Your task to perform on an android device: turn on data saver in the chrome app Image 0: 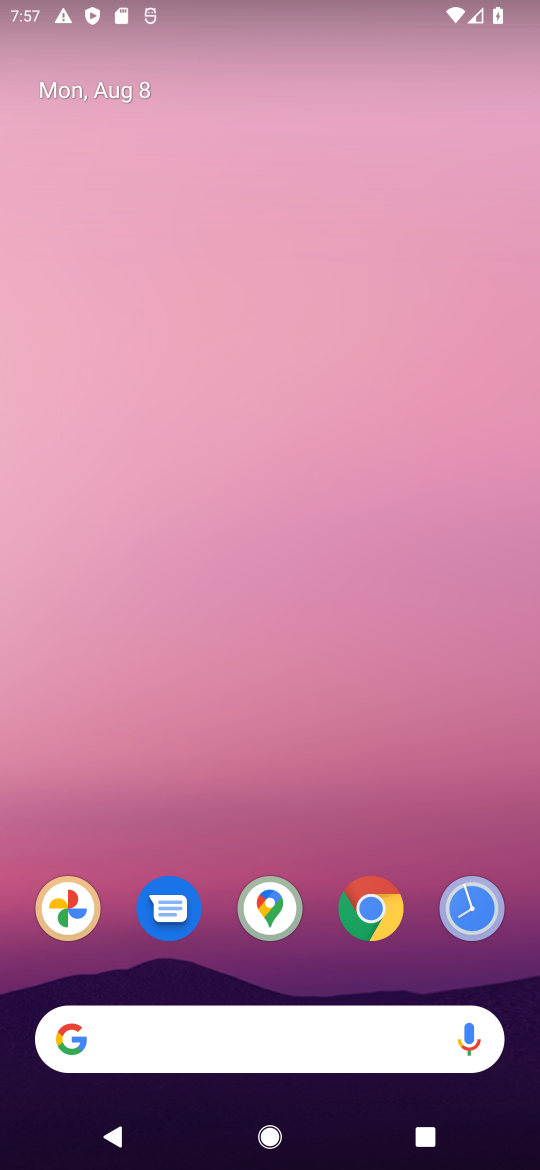
Step 0: click (355, 928)
Your task to perform on an android device: turn on data saver in the chrome app Image 1: 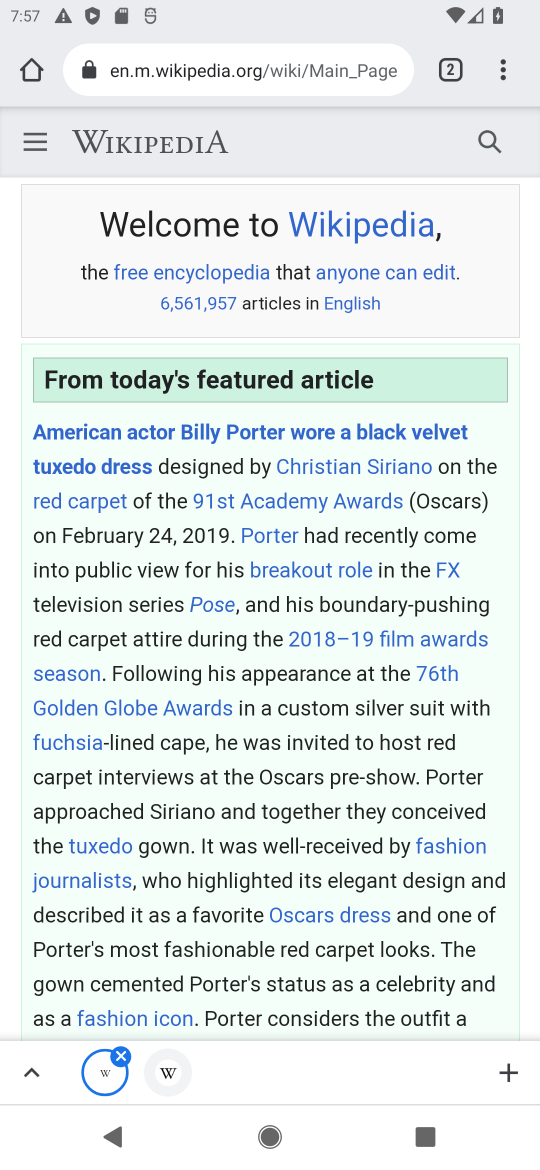
Step 1: click (506, 71)
Your task to perform on an android device: turn on data saver in the chrome app Image 2: 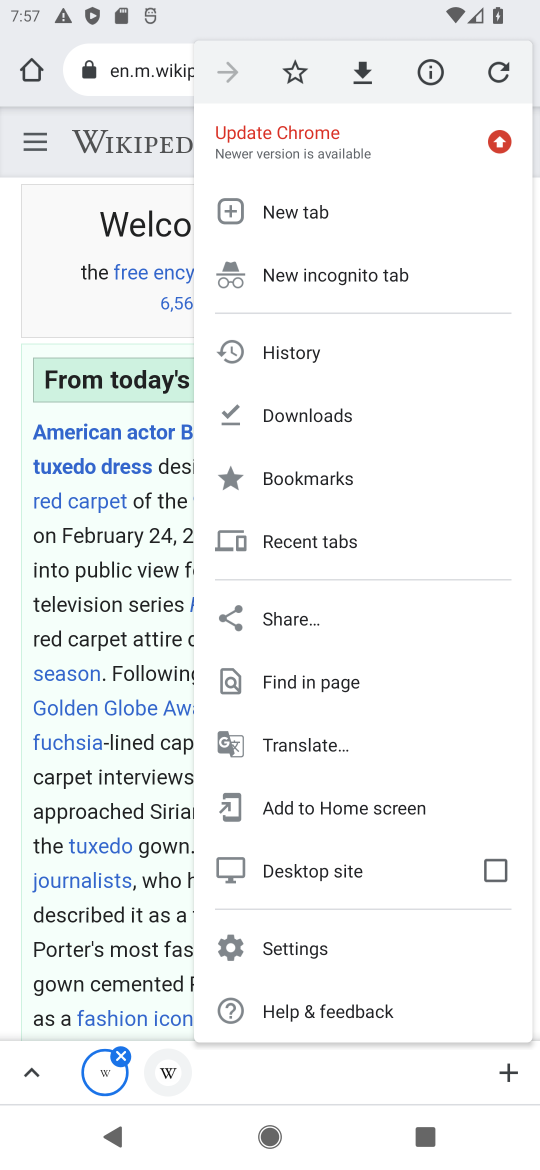
Step 2: click (318, 943)
Your task to perform on an android device: turn on data saver in the chrome app Image 3: 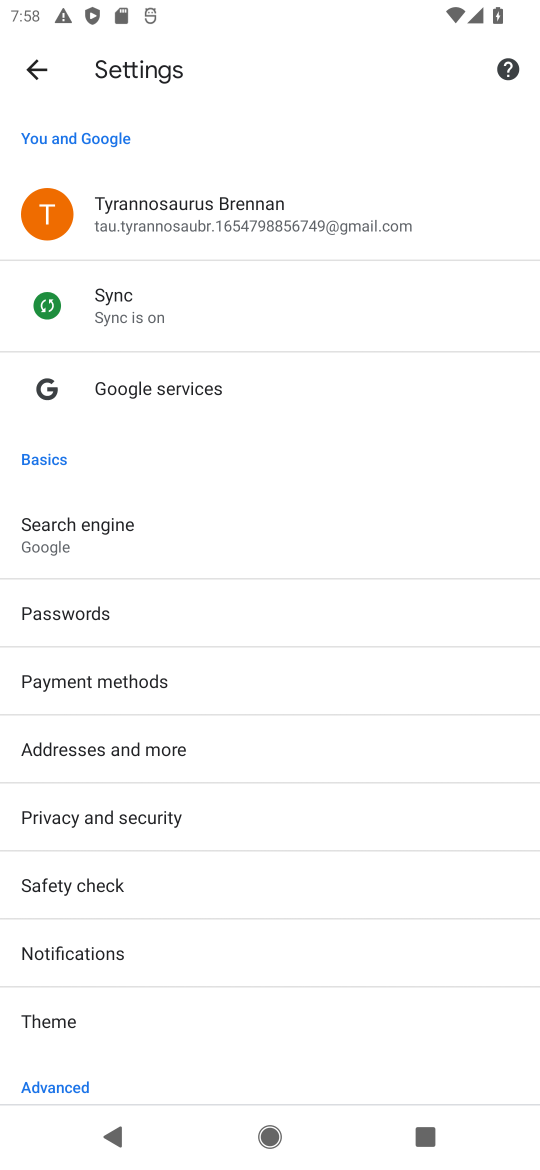
Step 3: click (27, 76)
Your task to perform on an android device: turn on data saver in the chrome app Image 4: 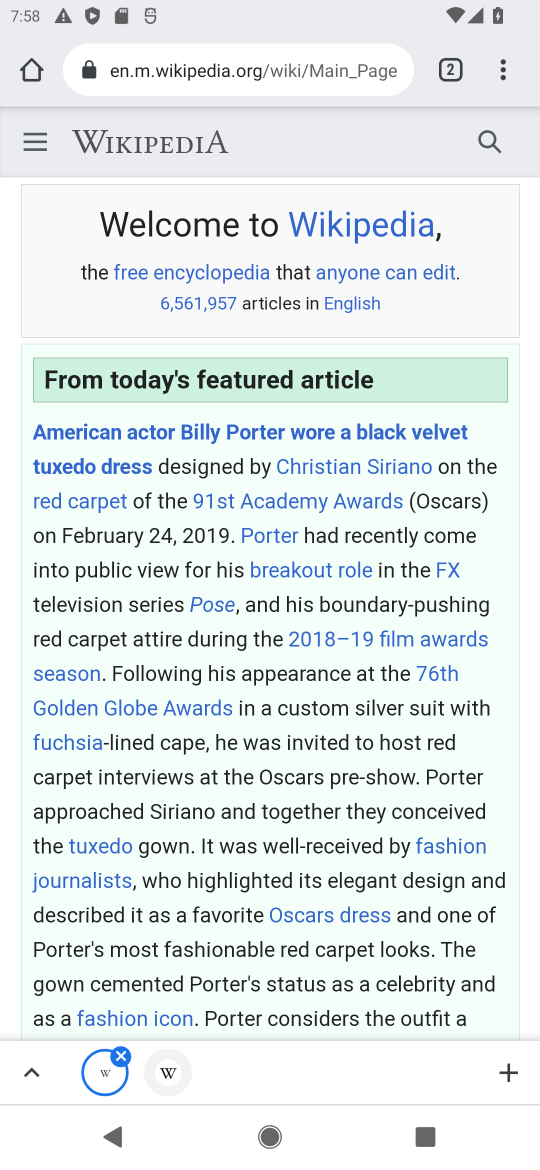
Step 4: click (510, 63)
Your task to perform on an android device: turn on data saver in the chrome app Image 5: 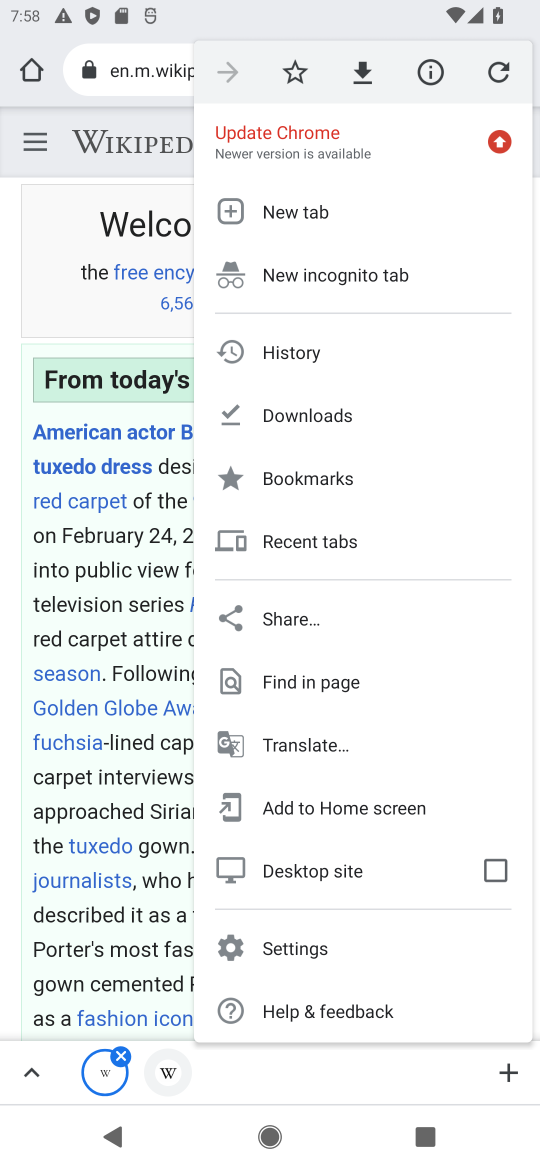
Step 5: click (510, 63)
Your task to perform on an android device: turn on data saver in the chrome app Image 6: 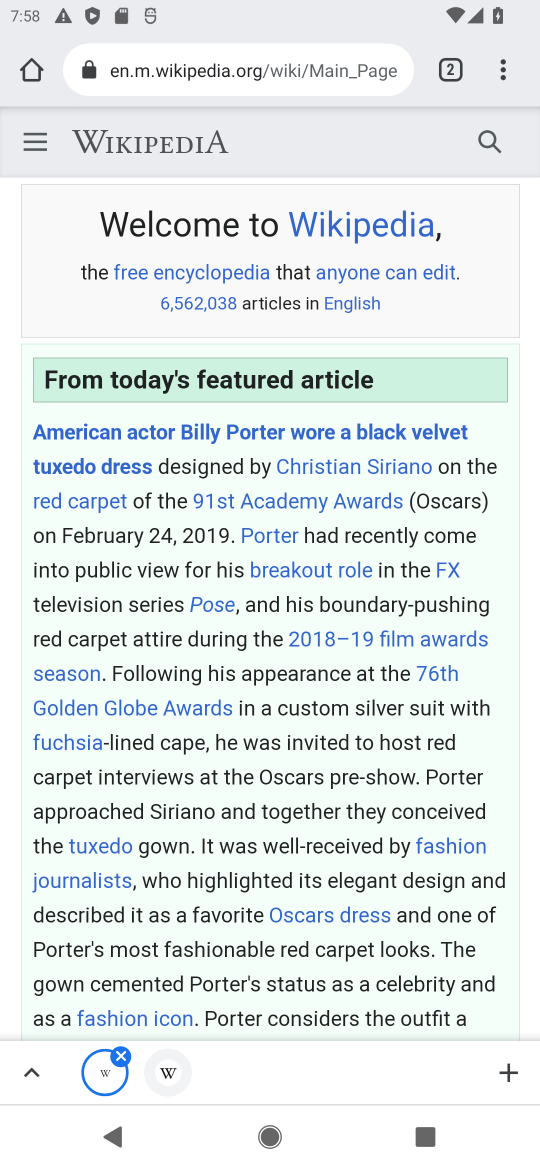
Step 6: click (506, 77)
Your task to perform on an android device: turn on data saver in the chrome app Image 7: 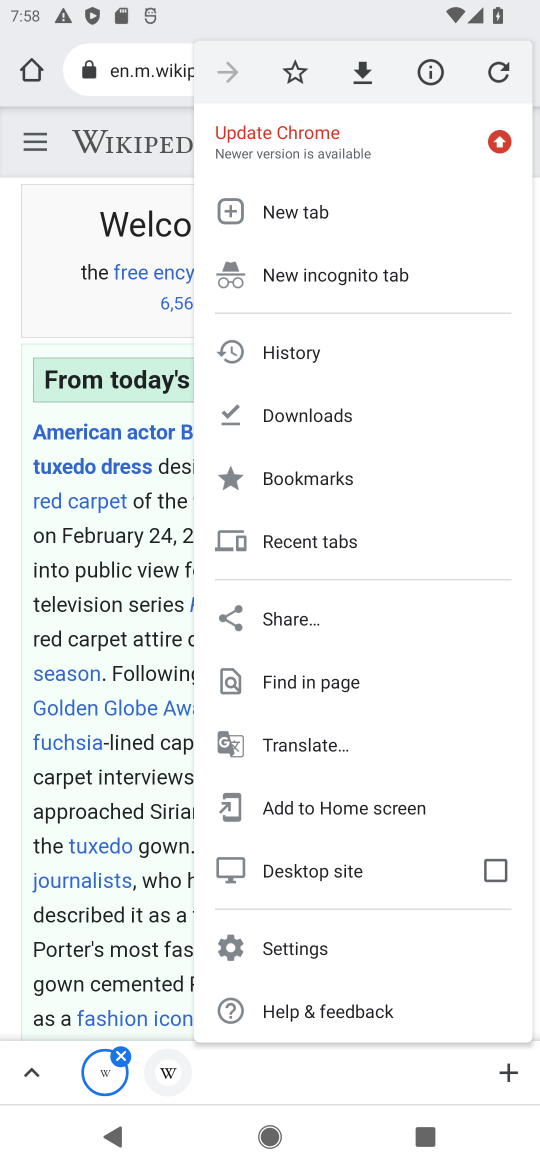
Step 7: click (325, 960)
Your task to perform on an android device: turn on data saver in the chrome app Image 8: 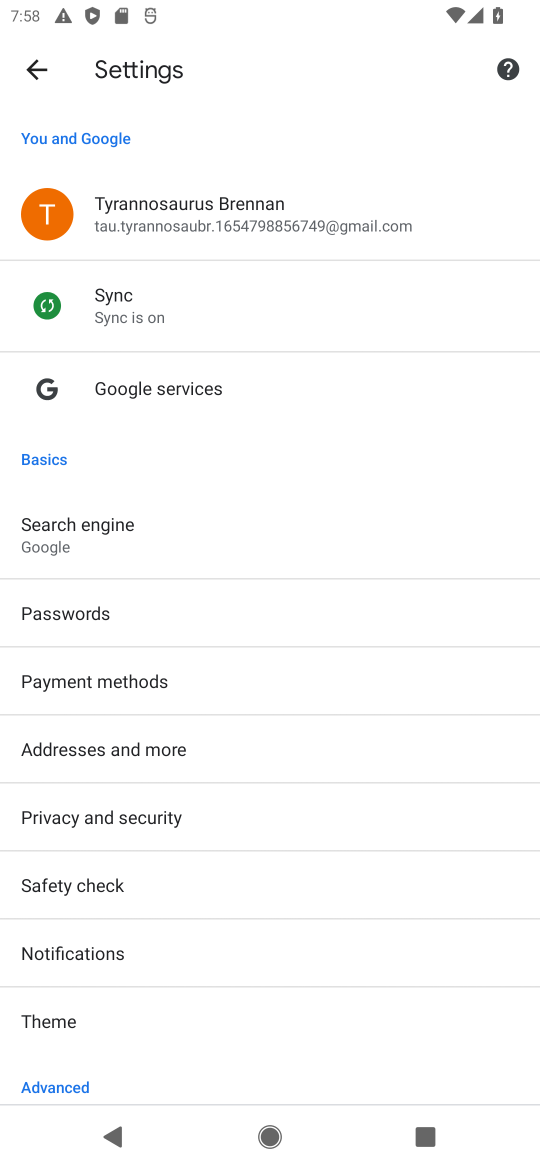
Step 8: drag from (325, 960) to (296, 493)
Your task to perform on an android device: turn on data saver in the chrome app Image 9: 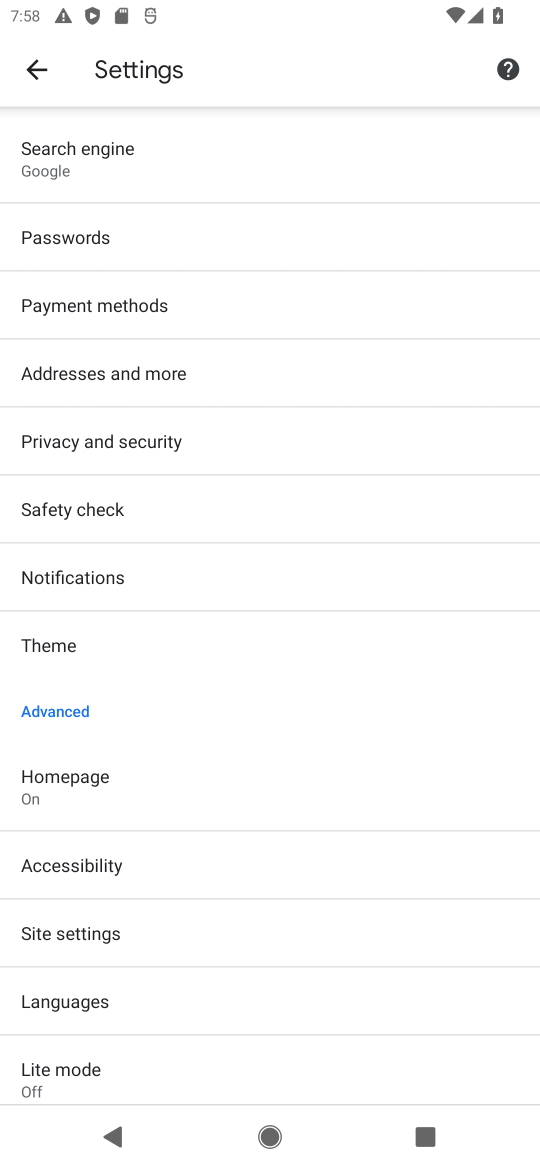
Step 9: drag from (224, 1012) to (329, 380)
Your task to perform on an android device: turn on data saver in the chrome app Image 10: 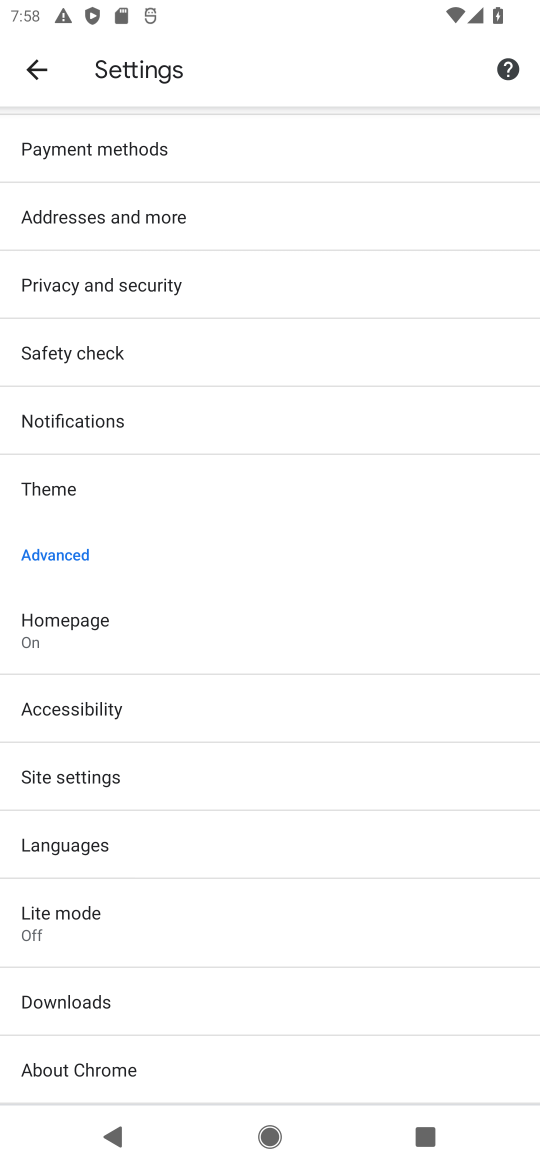
Step 10: click (208, 911)
Your task to perform on an android device: turn on data saver in the chrome app Image 11: 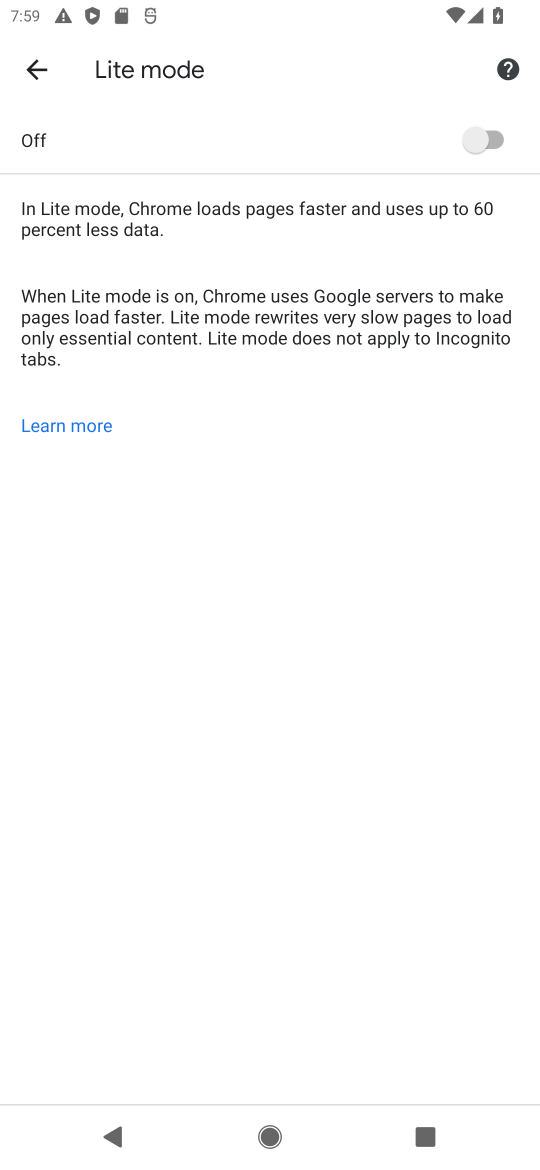
Step 11: click (478, 147)
Your task to perform on an android device: turn on data saver in the chrome app Image 12: 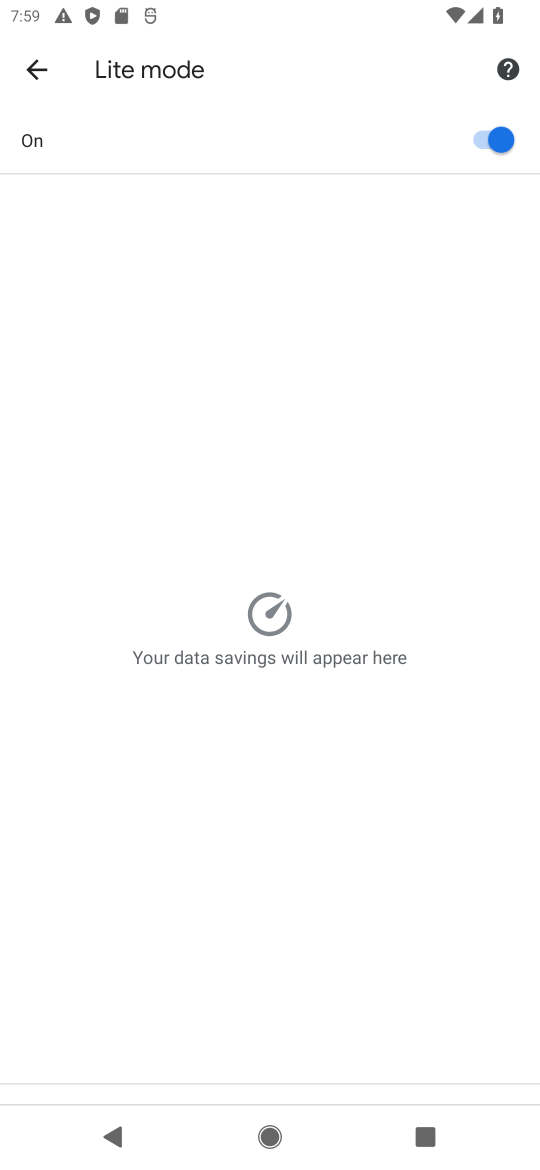
Step 12: task complete